Your task to perform on an android device: Turn off the flashlight Image 0: 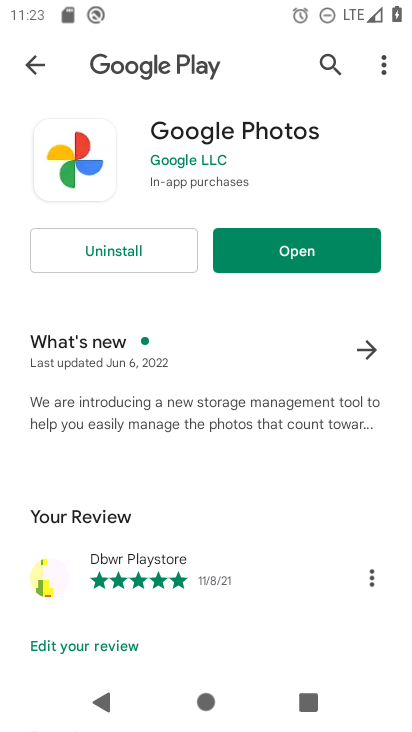
Step 0: press home button
Your task to perform on an android device: Turn off the flashlight Image 1: 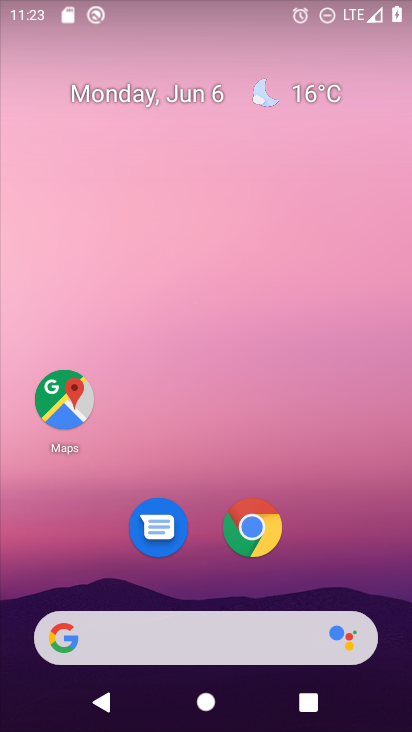
Step 1: drag from (242, 16) to (243, 340)
Your task to perform on an android device: Turn off the flashlight Image 2: 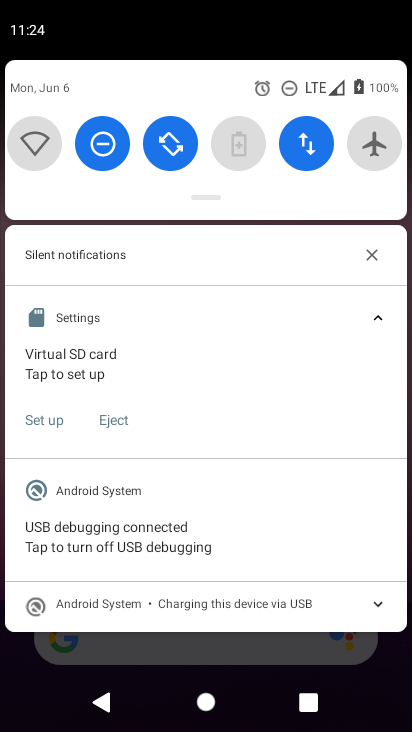
Step 2: drag from (202, 80) to (206, 320)
Your task to perform on an android device: Turn off the flashlight Image 3: 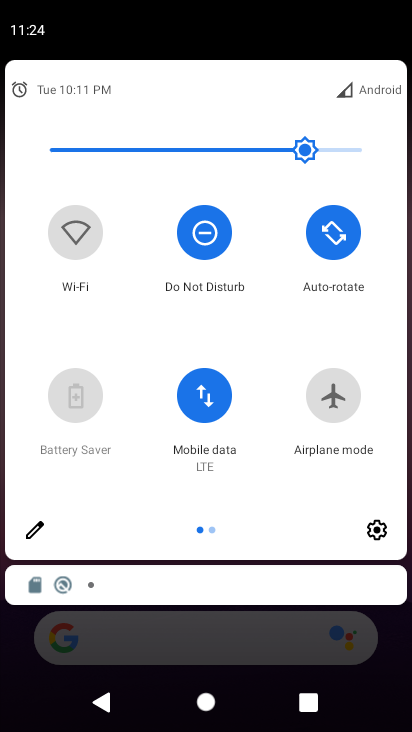
Step 3: click (30, 524)
Your task to perform on an android device: Turn off the flashlight Image 4: 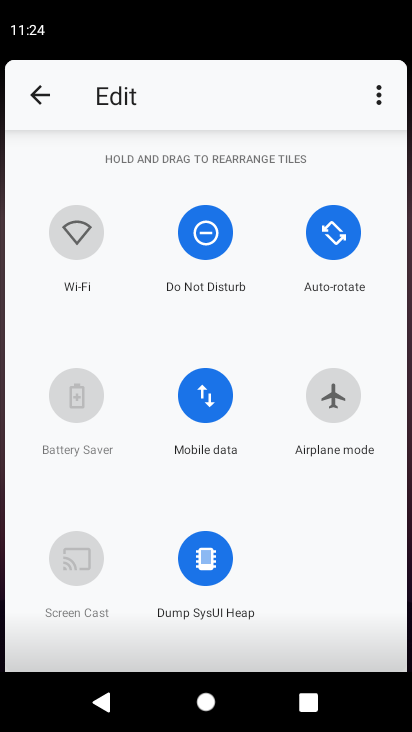
Step 4: task complete